Your task to perform on an android device: Find coffee shops on Maps Image 0: 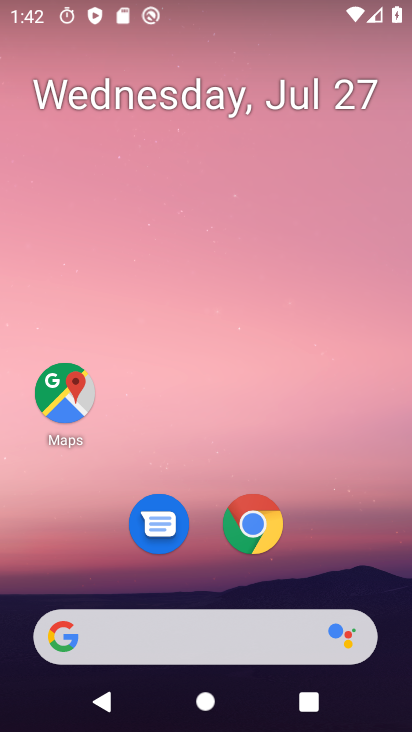
Step 0: click (70, 391)
Your task to perform on an android device: Find coffee shops on Maps Image 1: 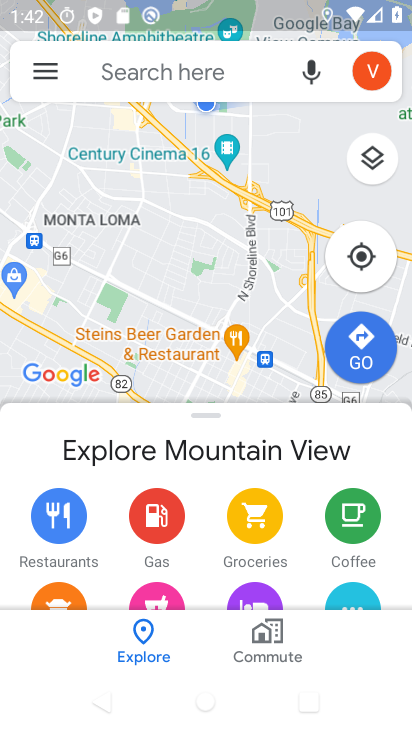
Step 1: click (171, 71)
Your task to perform on an android device: Find coffee shops on Maps Image 2: 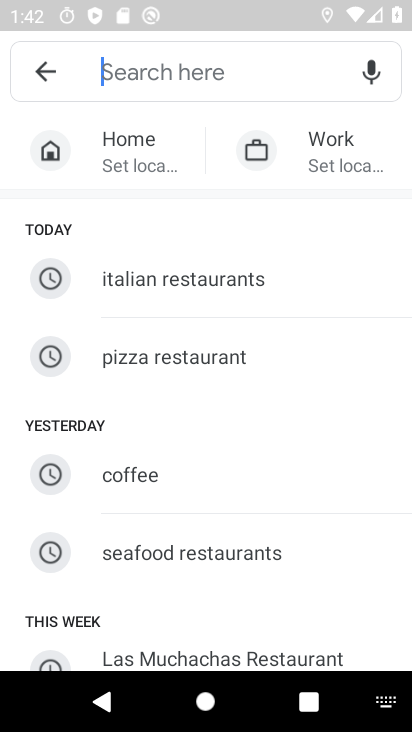
Step 2: click (144, 466)
Your task to perform on an android device: Find coffee shops on Maps Image 3: 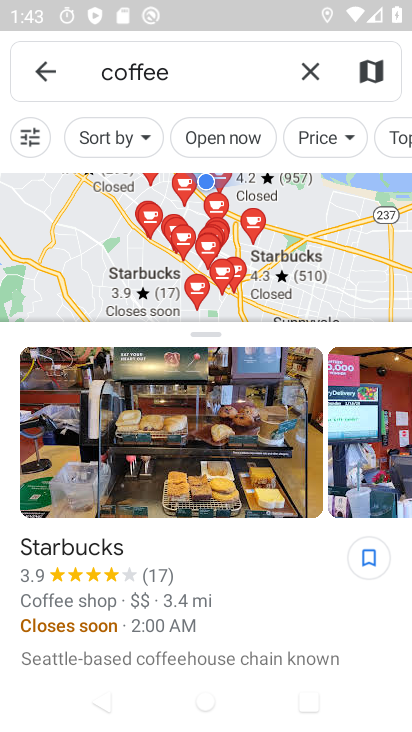
Step 3: task complete